Your task to perform on an android device: see tabs open on other devices in the chrome app Image 0: 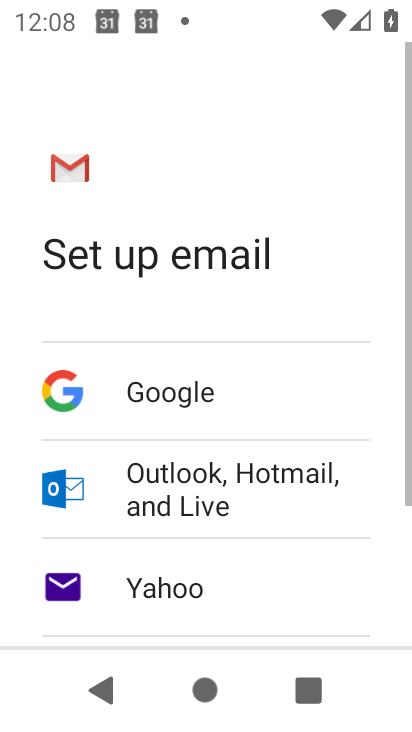
Step 0: press home button
Your task to perform on an android device: see tabs open on other devices in the chrome app Image 1: 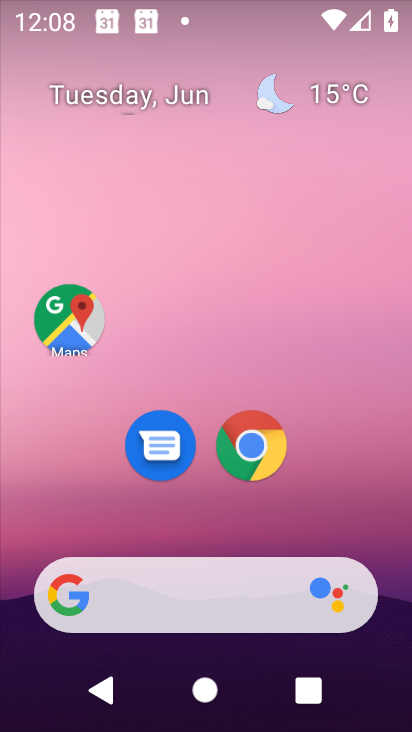
Step 1: click (271, 448)
Your task to perform on an android device: see tabs open on other devices in the chrome app Image 2: 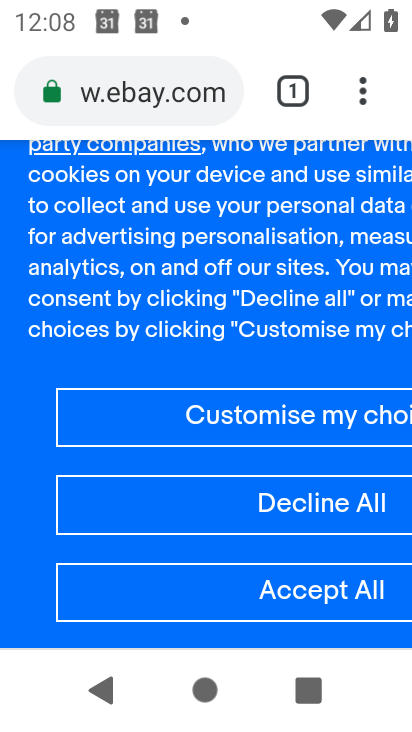
Step 2: click (363, 116)
Your task to perform on an android device: see tabs open on other devices in the chrome app Image 3: 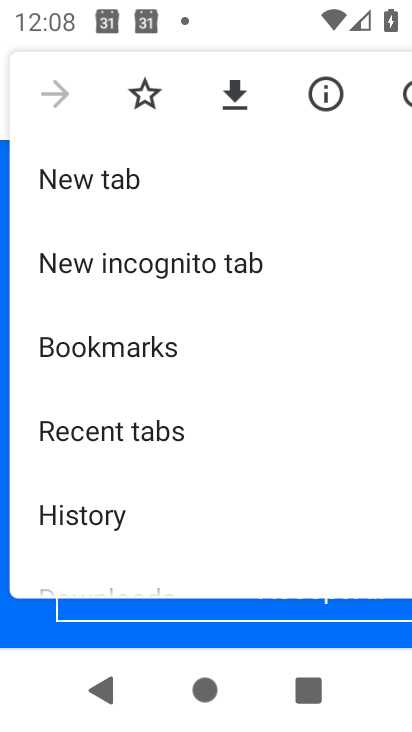
Step 3: drag from (193, 158) to (187, 551)
Your task to perform on an android device: see tabs open on other devices in the chrome app Image 4: 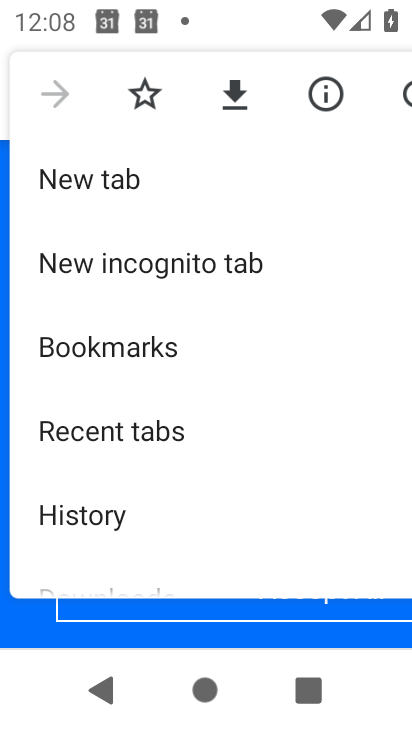
Step 4: drag from (106, 473) to (125, 121)
Your task to perform on an android device: see tabs open on other devices in the chrome app Image 5: 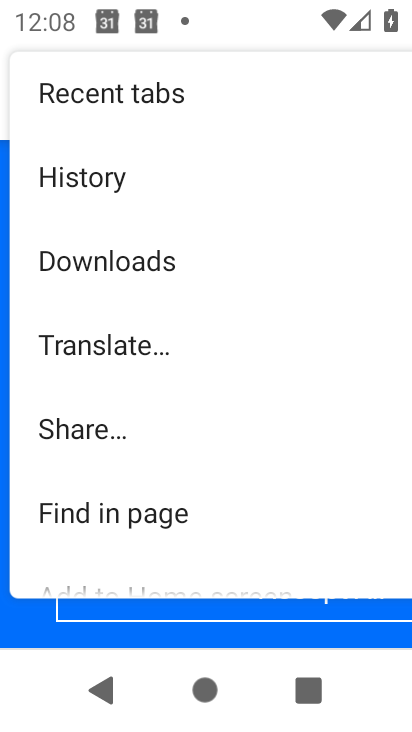
Step 5: click (134, 106)
Your task to perform on an android device: see tabs open on other devices in the chrome app Image 6: 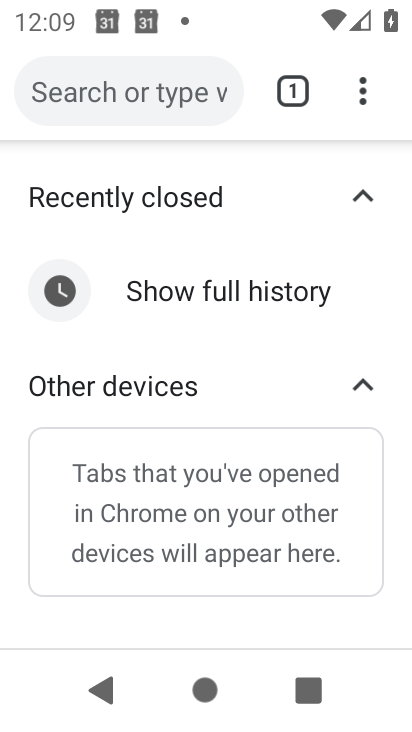
Step 6: task complete